Your task to perform on an android device: read, delete, or share a saved page in the chrome app Image 0: 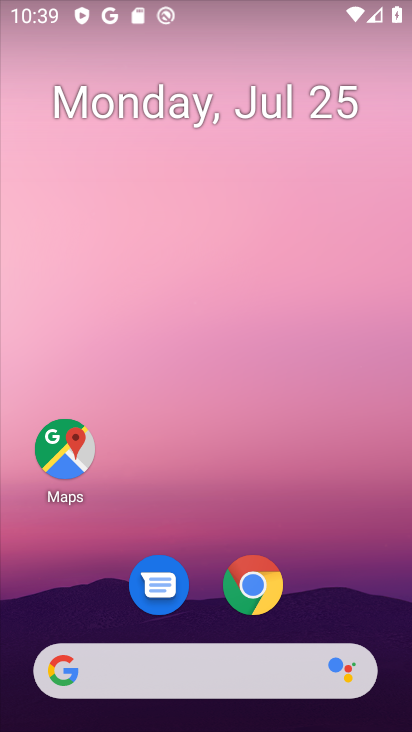
Step 0: click (256, 589)
Your task to perform on an android device: read, delete, or share a saved page in the chrome app Image 1: 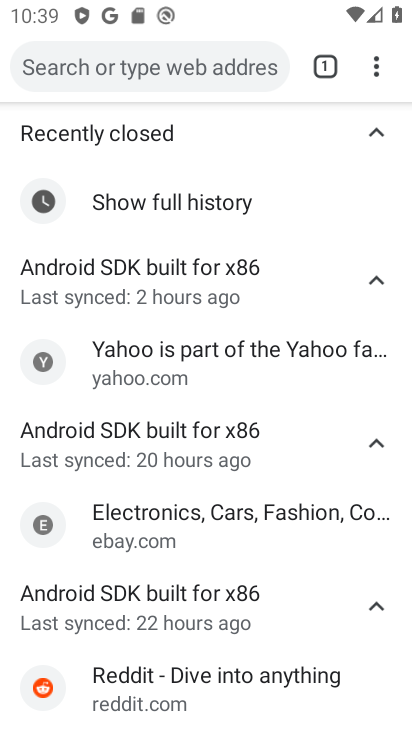
Step 1: click (375, 61)
Your task to perform on an android device: read, delete, or share a saved page in the chrome app Image 2: 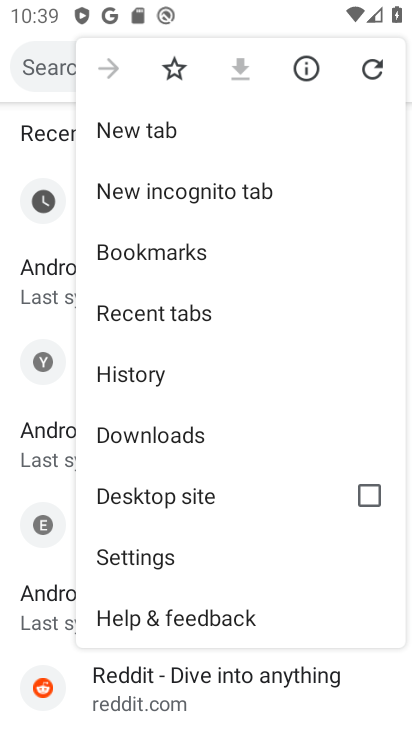
Step 2: click (181, 433)
Your task to perform on an android device: read, delete, or share a saved page in the chrome app Image 3: 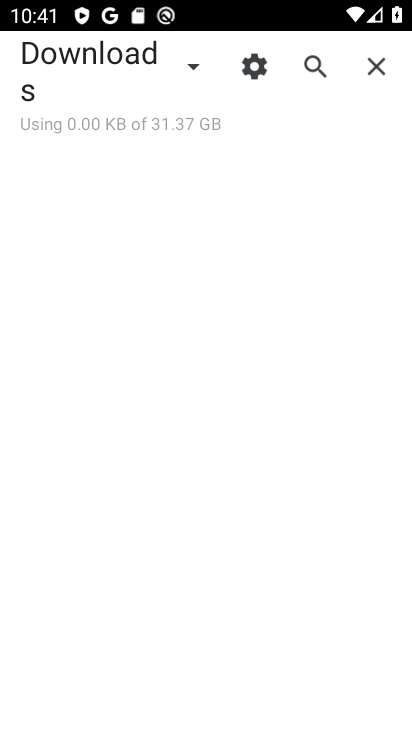
Step 3: task complete